Your task to perform on an android device: What's the weather going to be this weekend? Image 0: 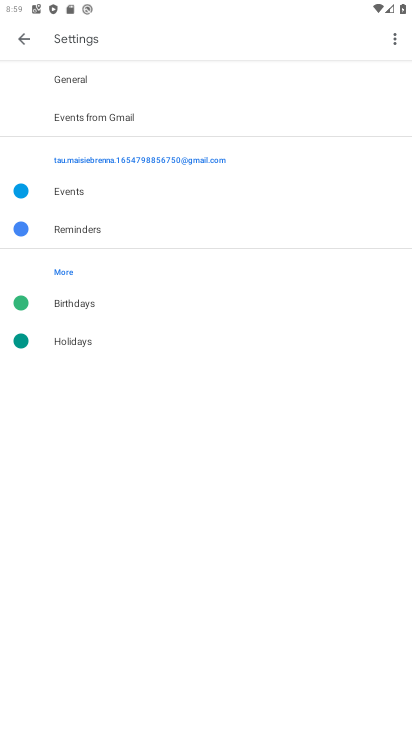
Step 0: press home button
Your task to perform on an android device: What's the weather going to be this weekend? Image 1: 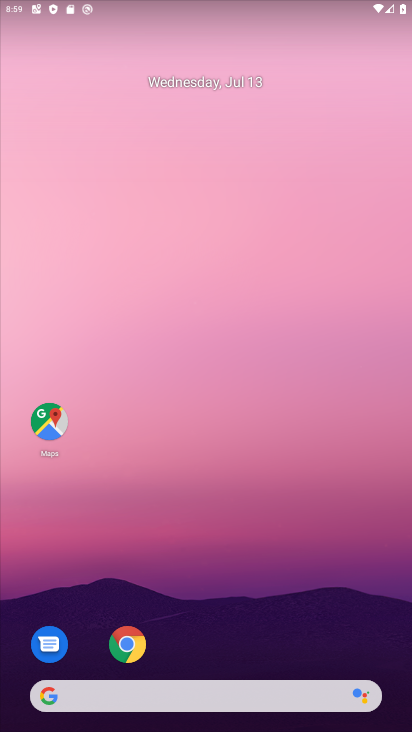
Step 1: drag from (208, 728) to (239, 59)
Your task to perform on an android device: What's the weather going to be this weekend? Image 2: 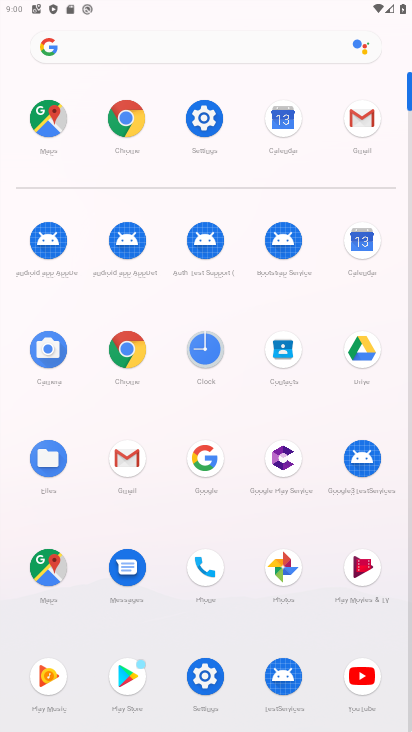
Step 2: click (205, 455)
Your task to perform on an android device: What's the weather going to be this weekend? Image 3: 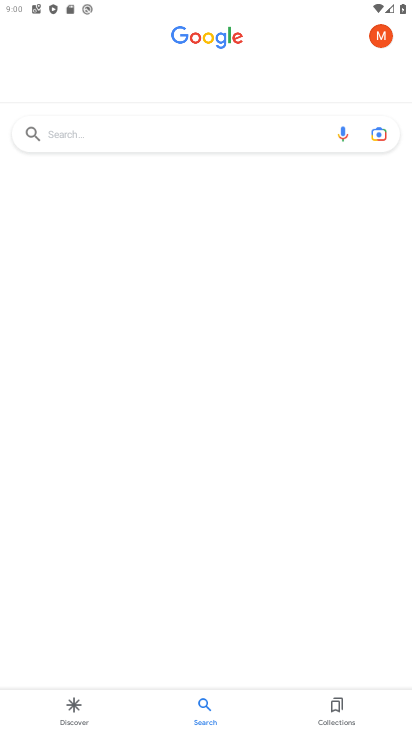
Step 3: click (227, 125)
Your task to perform on an android device: What's the weather going to be this weekend? Image 4: 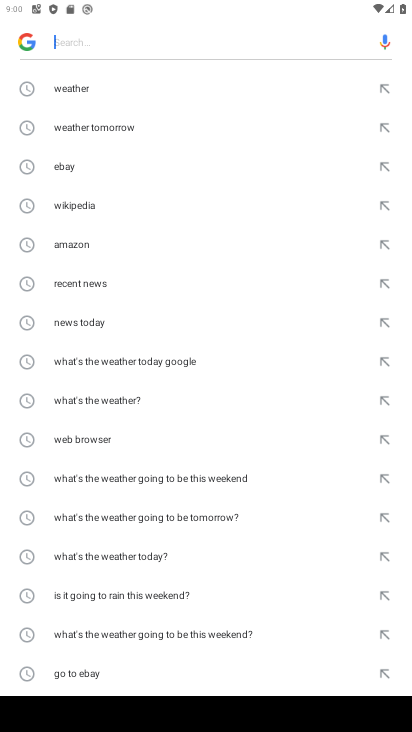
Step 4: click (74, 85)
Your task to perform on an android device: What's the weather going to be this weekend? Image 5: 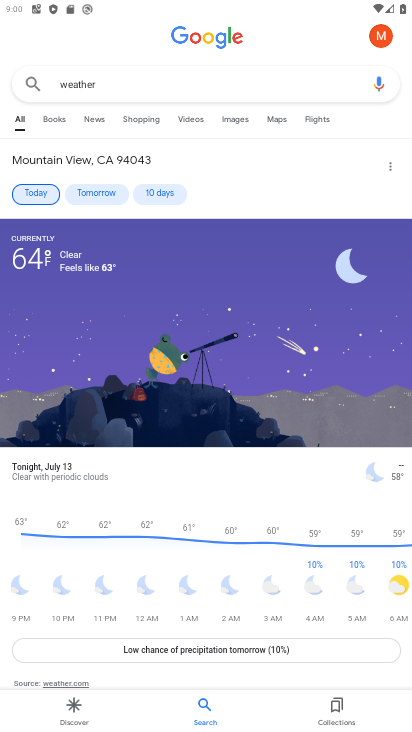
Step 5: click (93, 192)
Your task to perform on an android device: What's the weather going to be this weekend? Image 6: 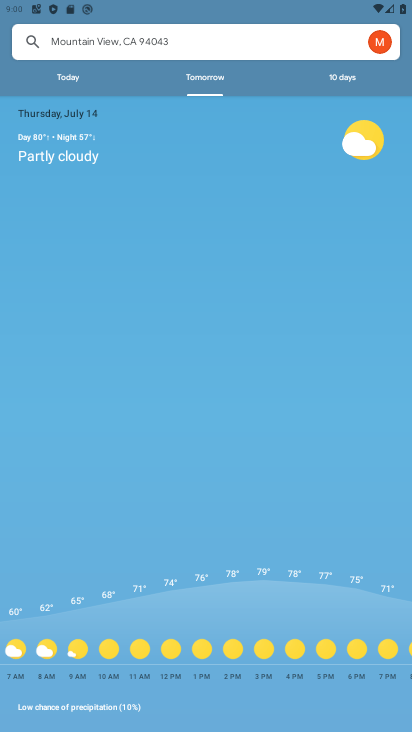
Step 6: click (346, 77)
Your task to perform on an android device: What's the weather going to be this weekend? Image 7: 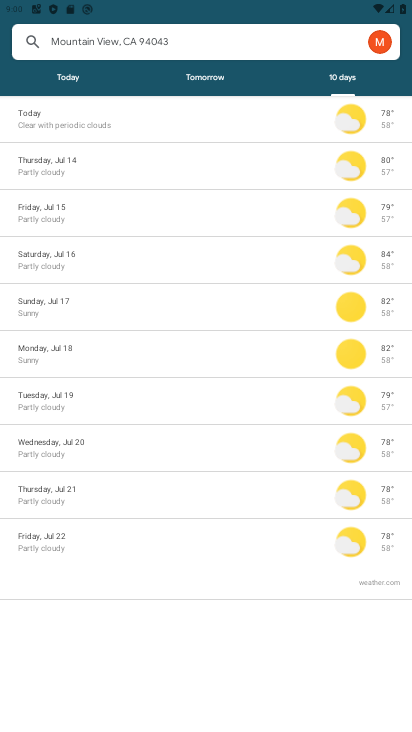
Step 7: click (80, 255)
Your task to perform on an android device: What's the weather going to be this weekend? Image 8: 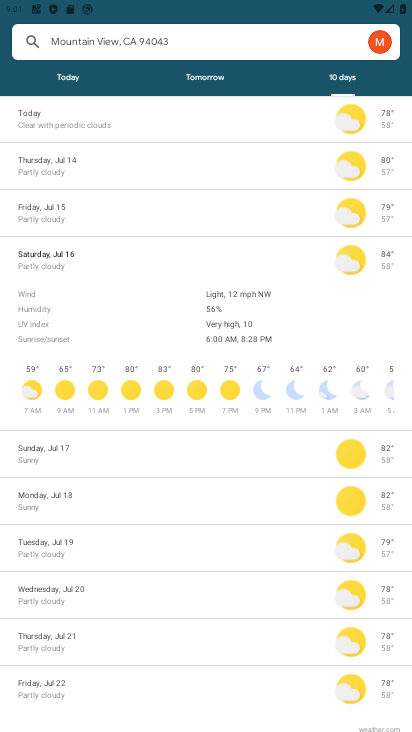
Step 8: task complete